Your task to perform on an android device: Go to privacy settings Image 0: 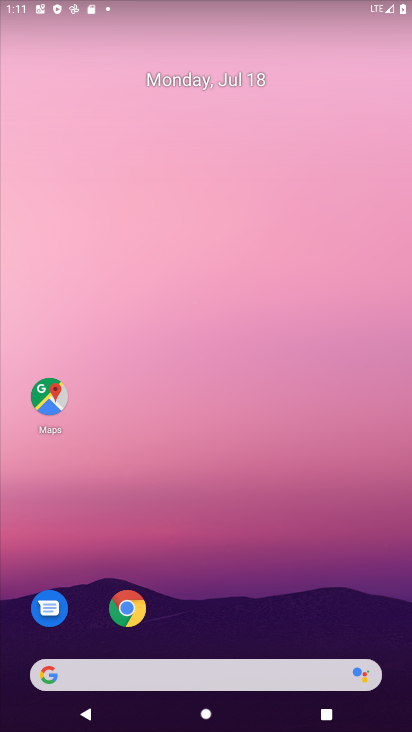
Step 0: drag from (335, 514) to (219, 80)
Your task to perform on an android device: Go to privacy settings Image 1: 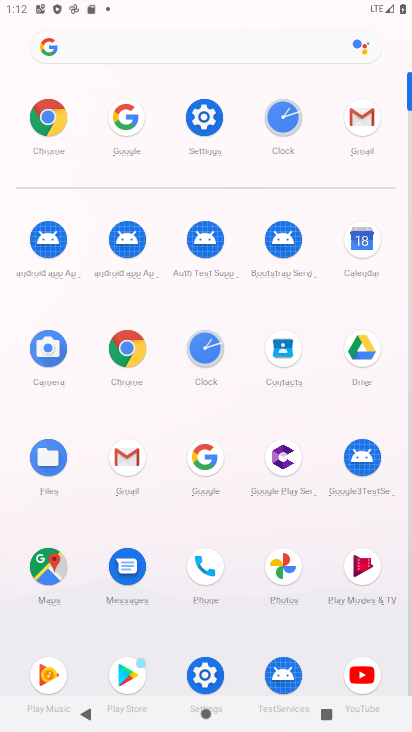
Step 1: click (211, 684)
Your task to perform on an android device: Go to privacy settings Image 2: 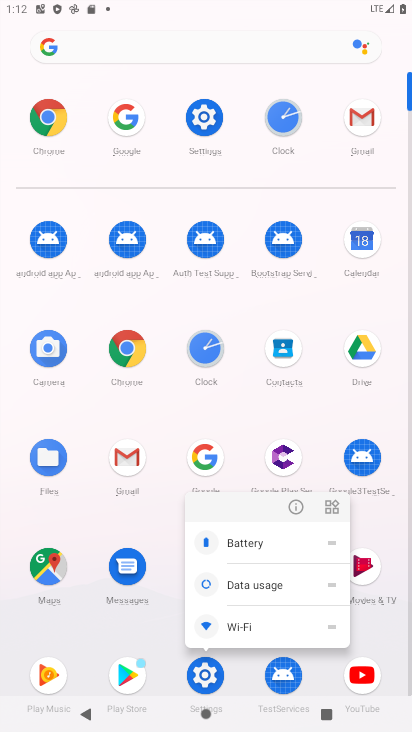
Step 2: click (198, 673)
Your task to perform on an android device: Go to privacy settings Image 3: 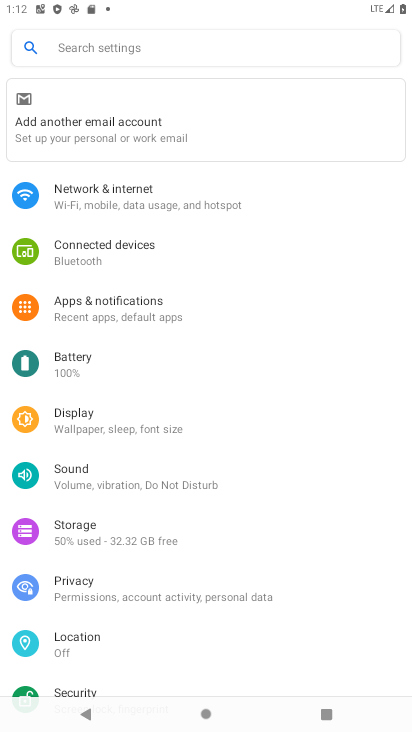
Step 3: click (51, 597)
Your task to perform on an android device: Go to privacy settings Image 4: 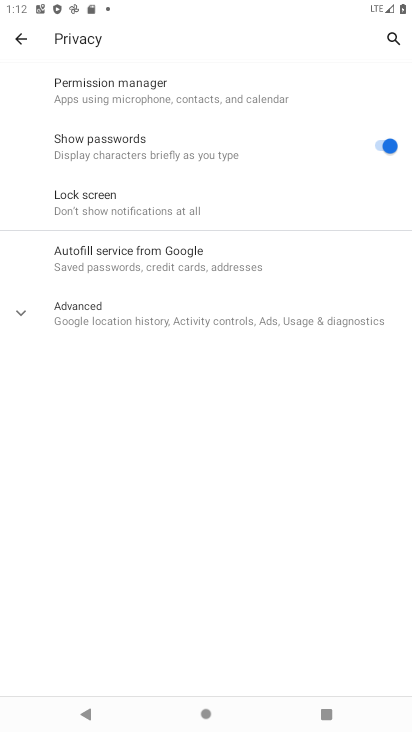
Step 4: task complete